Your task to perform on an android device: Set the phone to "Do not disturb". Image 0: 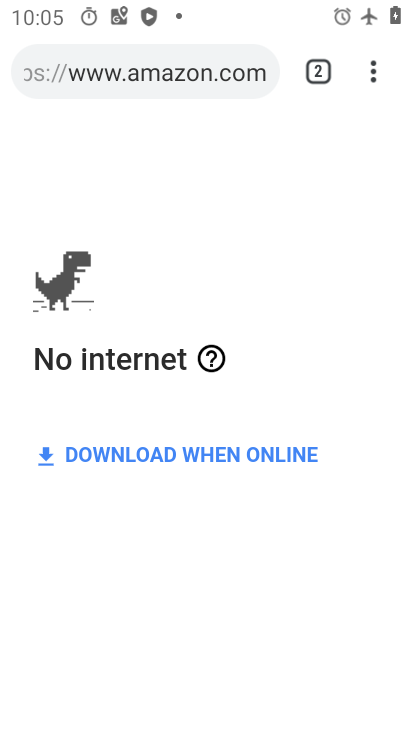
Step 0: press home button
Your task to perform on an android device: Set the phone to "Do not disturb". Image 1: 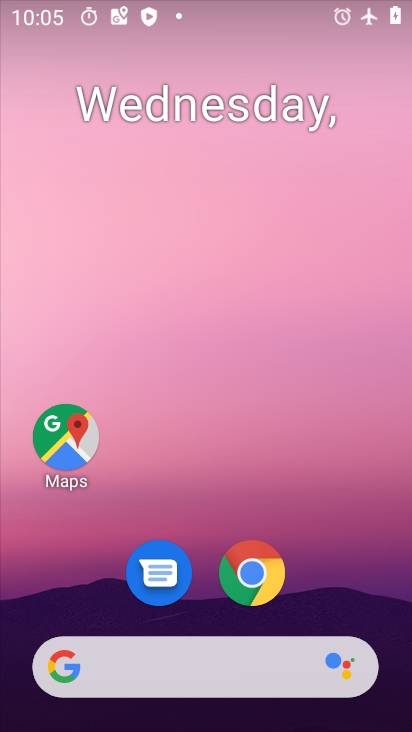
Step 1: drag from (255, 14) to (227, 268)
Your task to perform on an android device: Set the phone to "Do not disturb". Image 2: 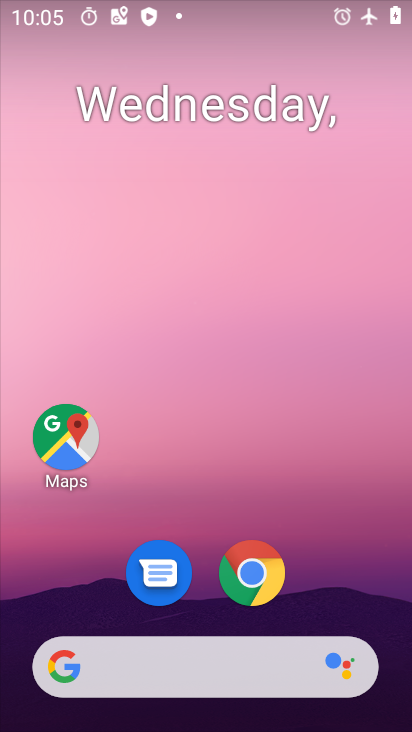
Step 2: drag from (263, 36) to (116, 330)
Your task to perform on an android device: Set the phone to "Do not disturb". Image 3: 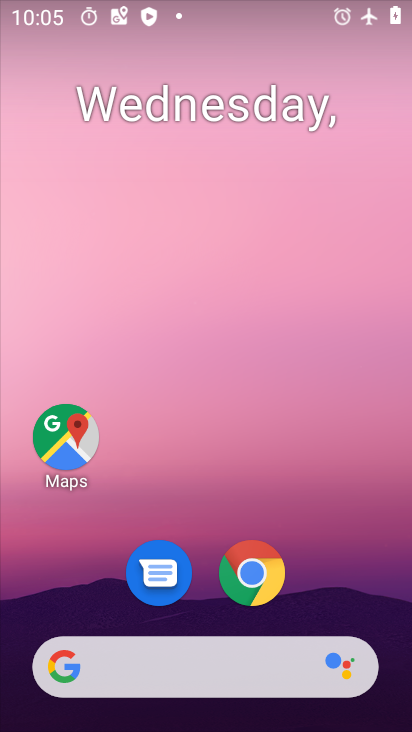
Step 3: drag from (332, 14) to (308, 377)
Your task to perform on an android device: Set the phone to "Do not disturb". Image 4: 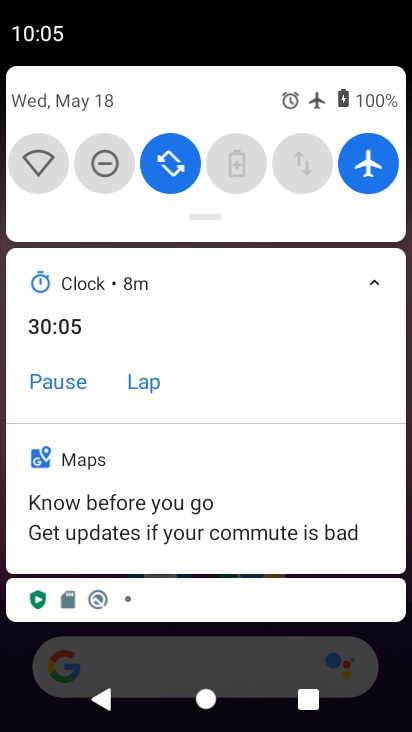
Step 4: drag from (288, 201) to (295, 485)
Your task to perform on an android device: Set the phone to "Do not disturb". Image 5: 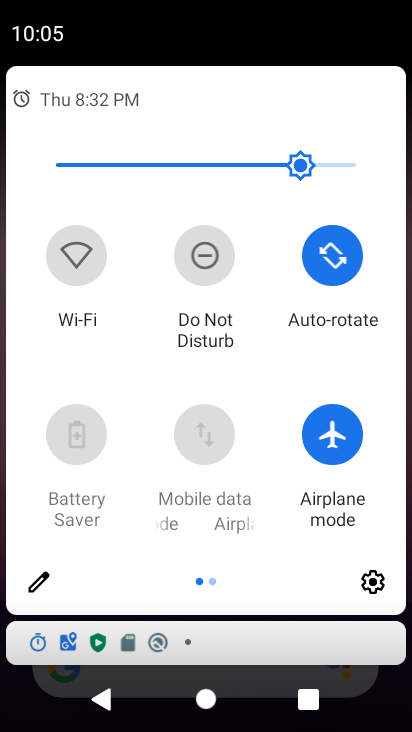
Step 5: click (211, 265)
Your task to perform on an android device: Set the phone to "Do not disturb". Image 6: 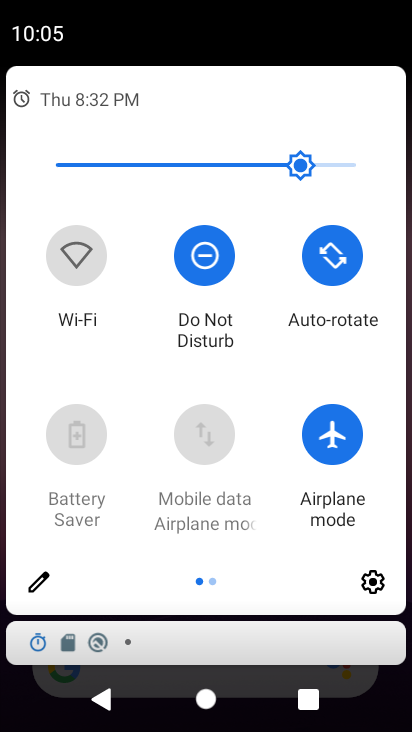
Step 6: task complete